Your task to perform on an android device: move a message to another label in the gmail app Image 0: 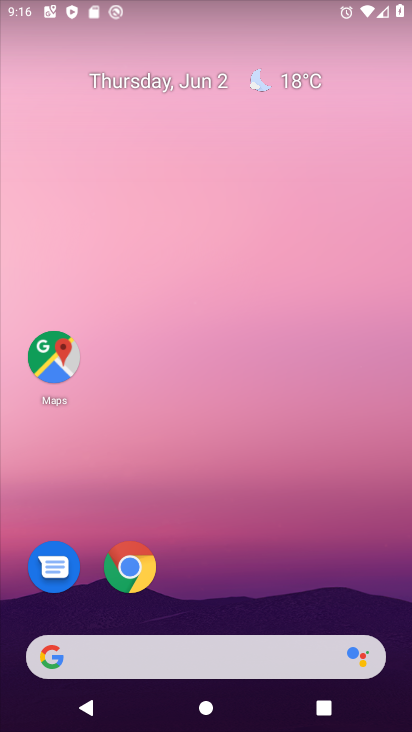
Step 0: drag from (198, 602) to (205, 111)
Your task to perform on an android device: move a message to another label in the gmail app Image 1: 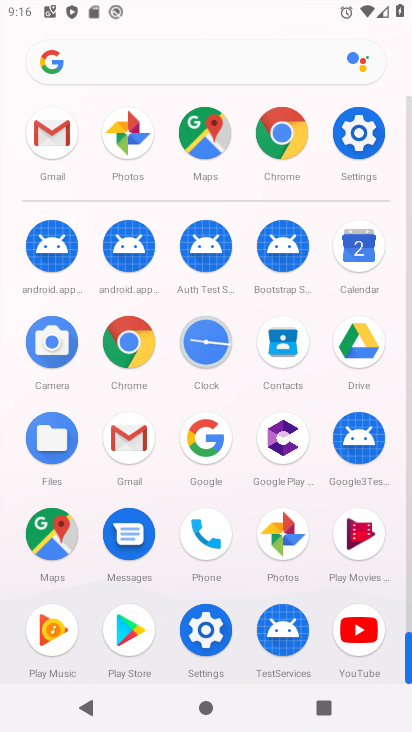
Step 1: click (132, 436)
Your task to perform on an android device: move a message to another label in the gmail app Image 2: 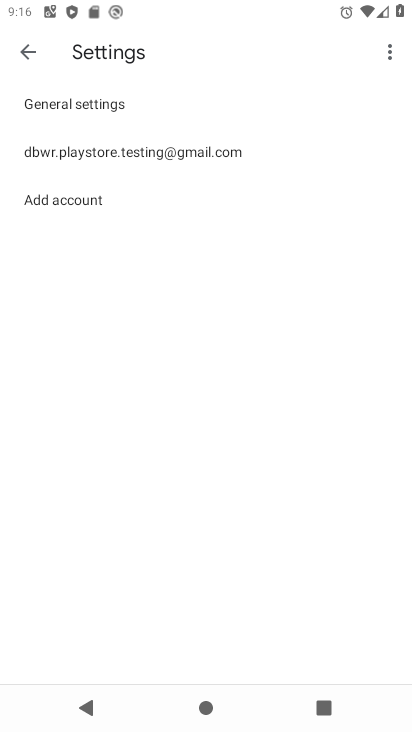
Step 2: click (25, 50)
Your task to perform on an android device: move a message to another label in the gmail app Image 3: 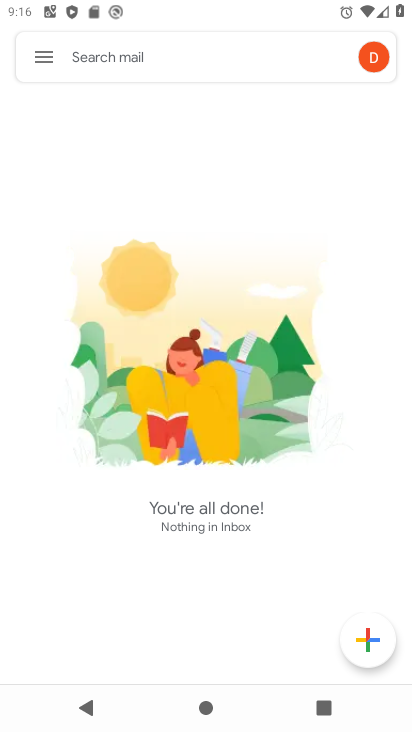
Step 3: click (47, 228)
Your task to perform on an android device: move a message to another label in the gmail app Image 4: 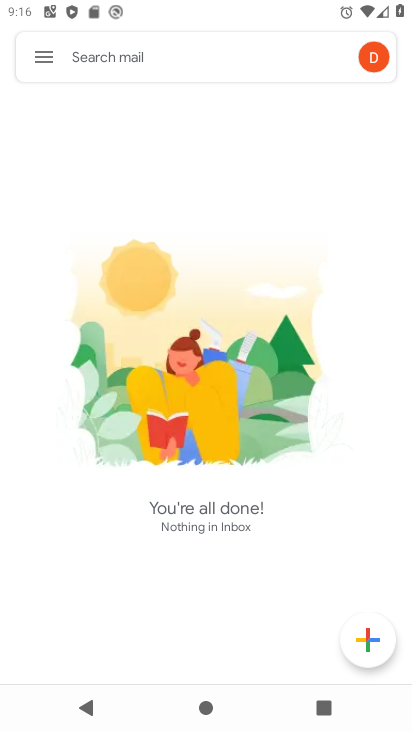
Step 4: click (43, 59)
Your task to perform on an android device: move a message to another label in the gmail app Image 5: 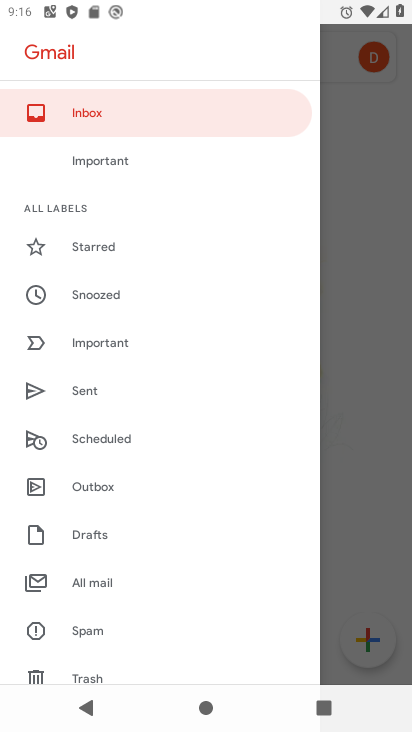
Step 5: click (108, 594)
Your task to perform on an android device: move a message to another label in the gmail app Image 6: 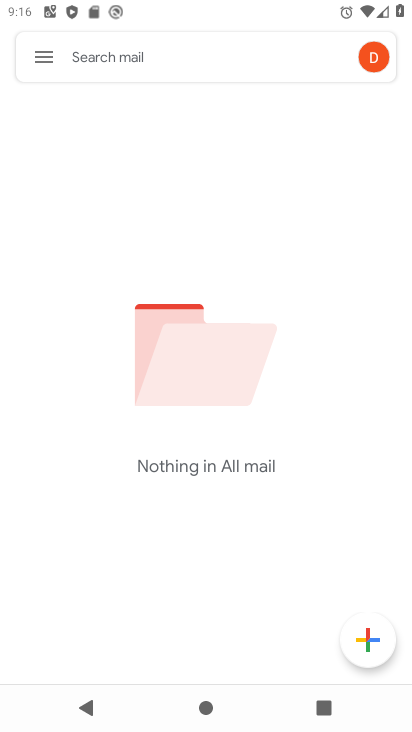
Step 6: task complete